Your task to perform on an android device: Find coffee shops on Maps Image 0: 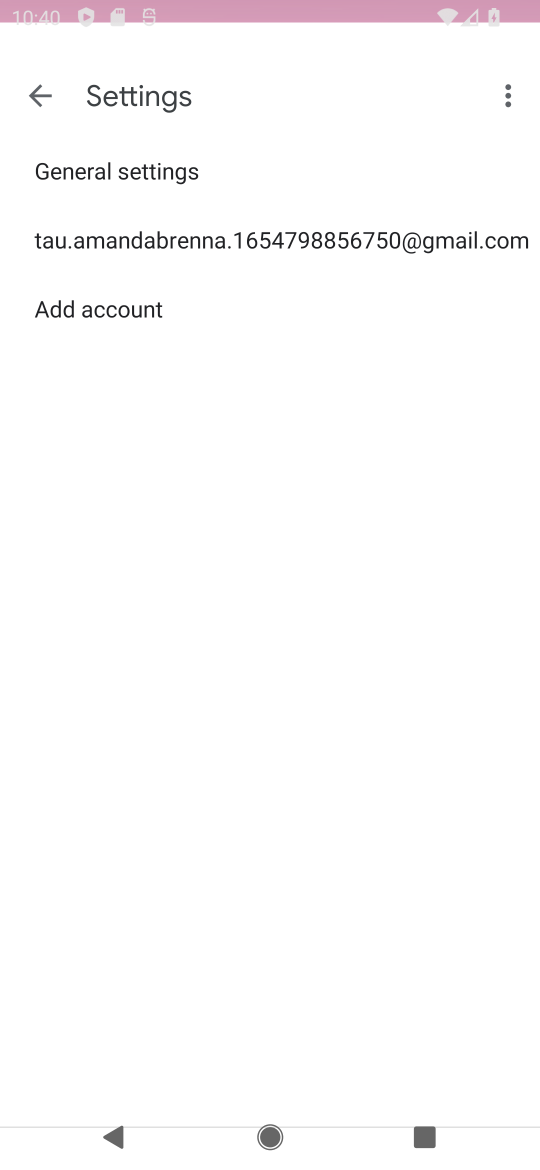
Step 0: press home button
Your task to perform on an android device: Find coffee shops on Maps Image 1: 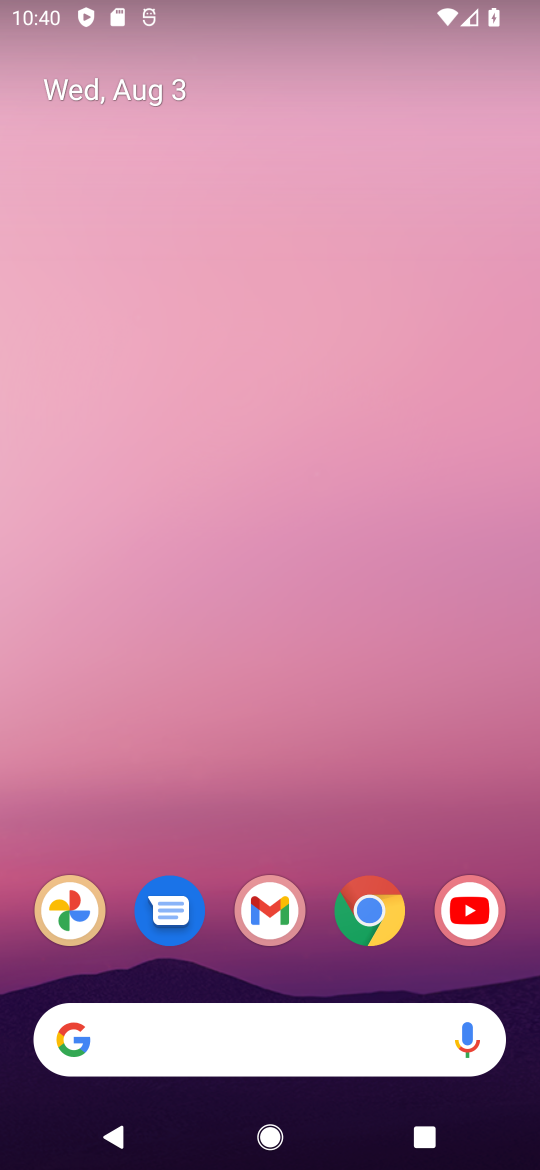
Step 1: drag from (311, 852) to (414, 4)
Your task to perform on an android device: Find coffee shops on Maps Image 2: 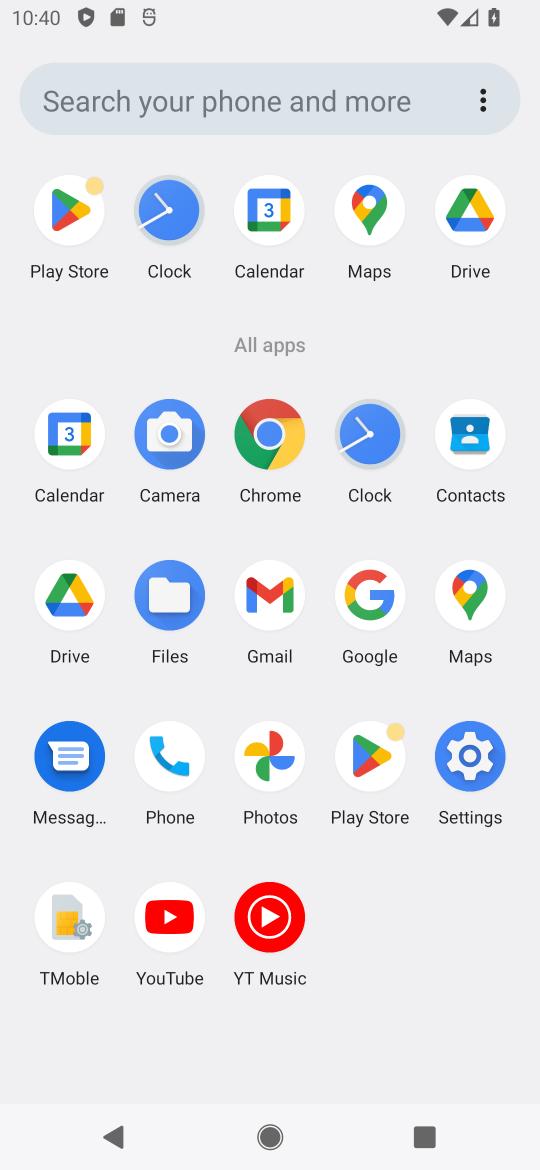
Step 2: click (468, 583)
Your task to perform on an android device: Find coffee shops on Maps Image 3: 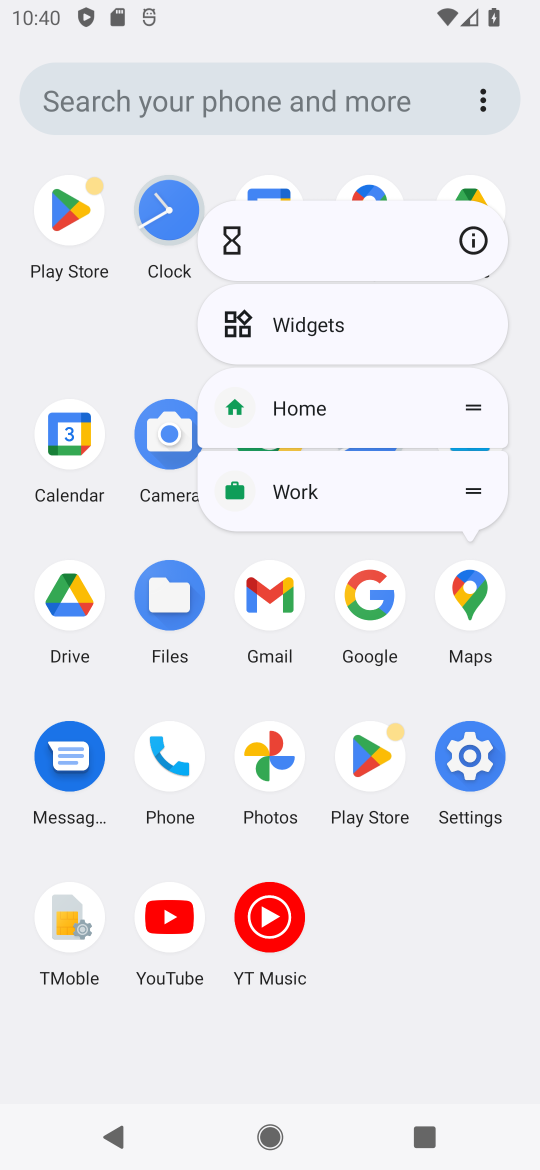
Step 3: click (468, 583)
Your task to perform on an android device: Find coffee shops on Maps Image 4: 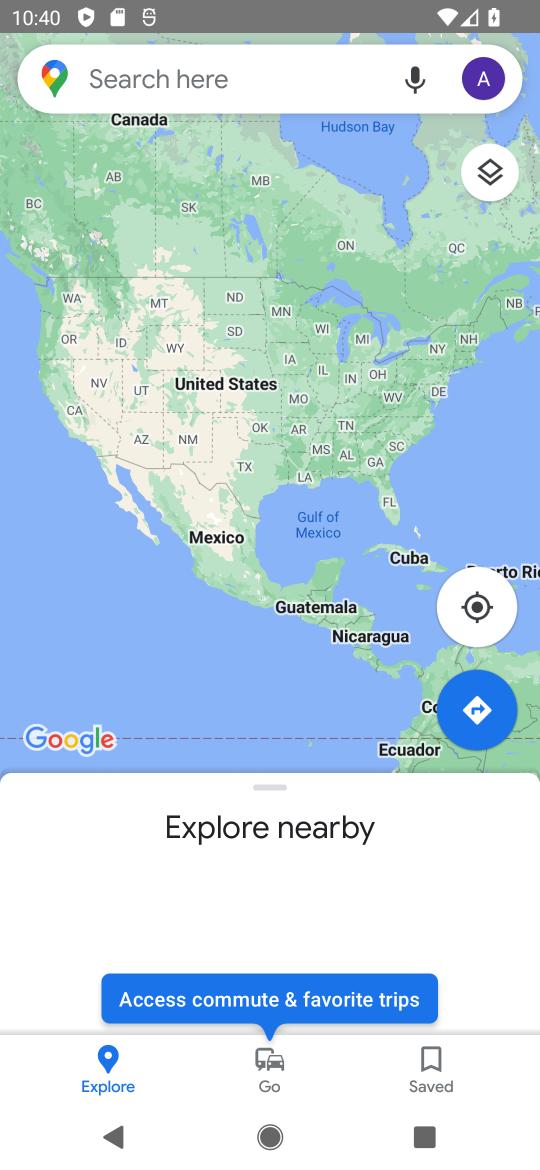
Step 4: click (142, 70)
Your task to perform on an android device: Find coffee shops on Maps Image 5: 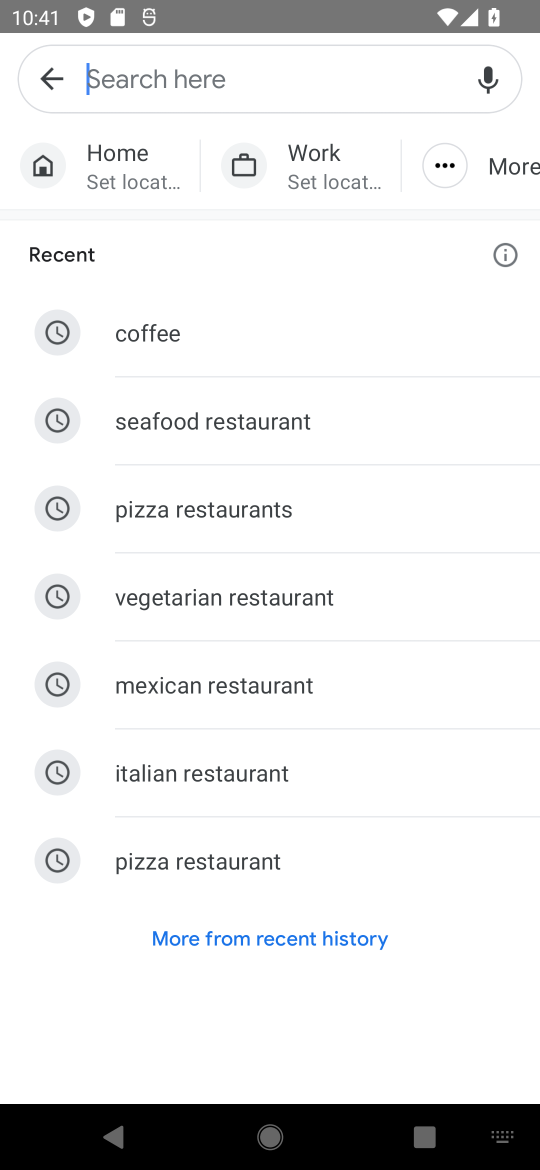
Step 5: click (158, 326)
Your task to perform on an android device: Find coffee shops on Maps Image 6: 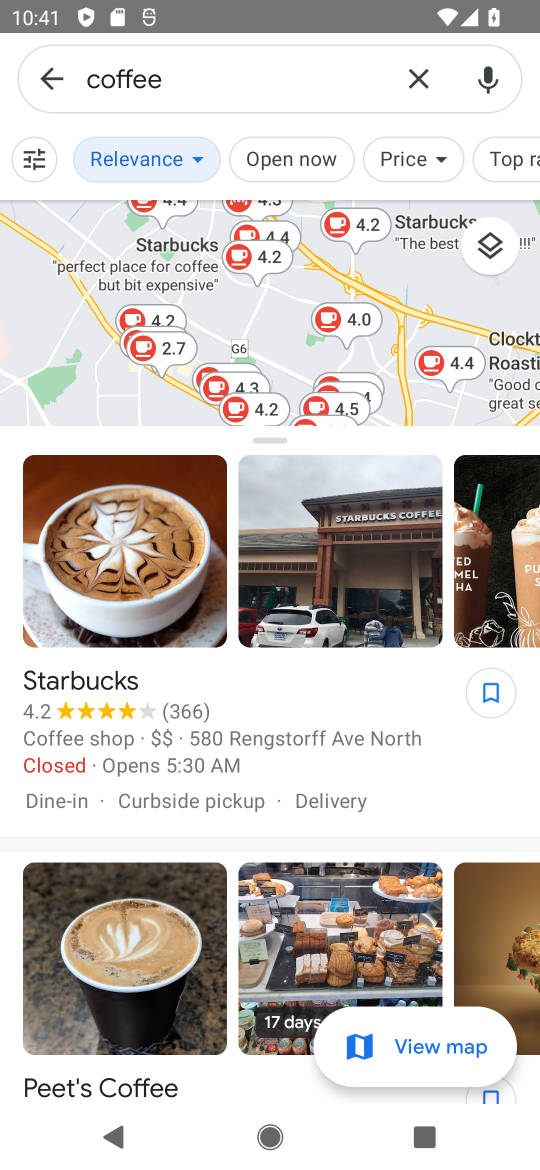
Step 6: task complete